Your task to perform on an android device: find snoozed emails in the gmail app Image 0: 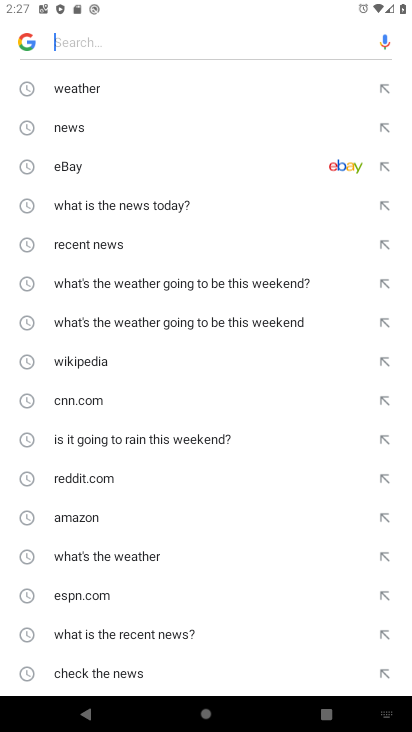
Step 0: press home button
Your task to perform on an android device: find snoozed emails in the gmail app Image 1: 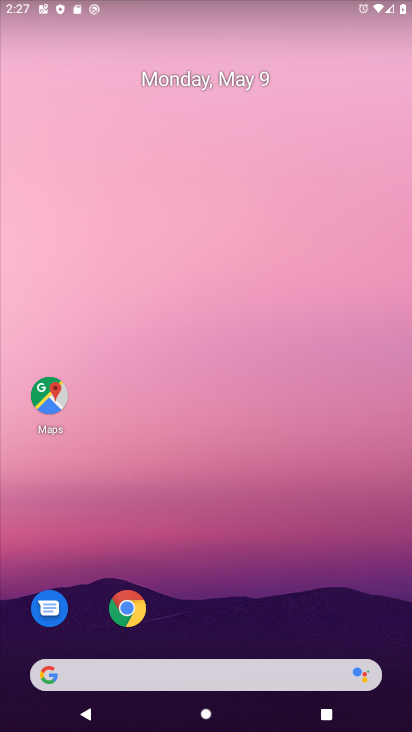
Step 1: drag from (182, 630) to (255, 108)
Your task to perform on an android device: find snoozed emails in the gmail app Image 2: 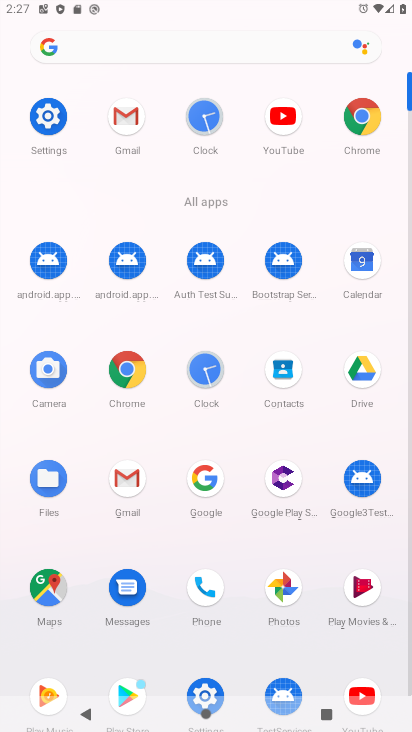
Step 2: click (119, 121)
Your task to perform on an android device: find snoozed emails in the gmail app Image 3: 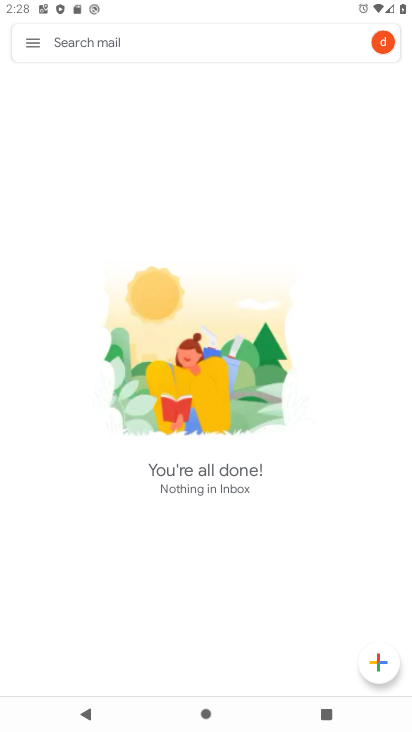
Step 3: click (39, 34)
Your task to perform on an android device: find snoozed emails in the gmail app Image 4: 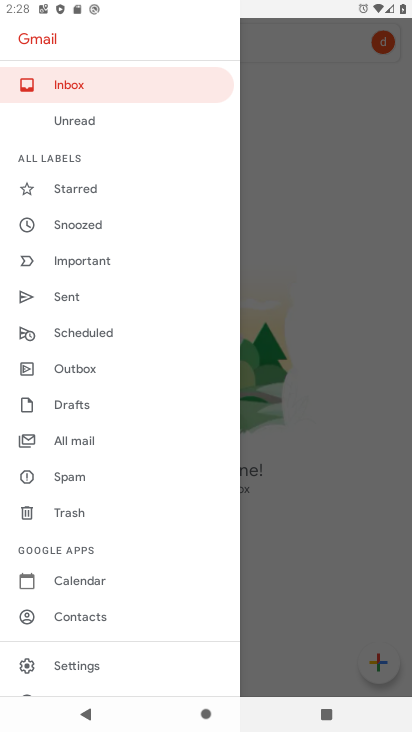
Step 4: click (107, 216)
Your task to perform on an android device: find snoozed emails in the gmail app Image 5: 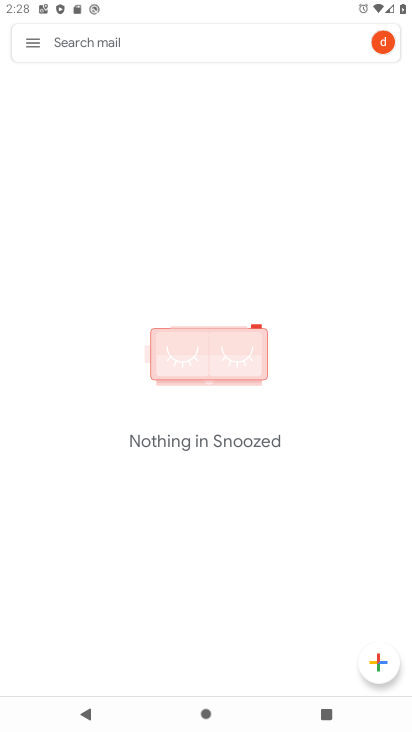
Step 5: task complete